Your task to perform on an android device: Search for lenovo thinkpad on costco, select the first entry, add it to the cart, then select checkout. Image 0: 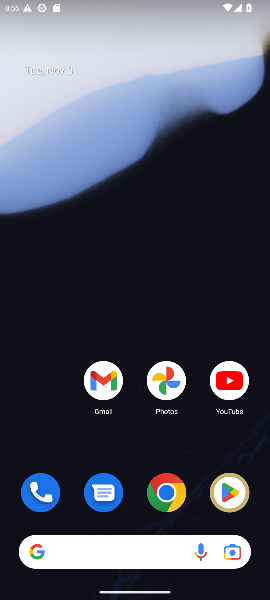
Step 0: click (176, 492)
Your task to perform on an android device: Search for lenovo thinkpad on costco, select the first entry, add it to the cart, then select checkout. Image 1: 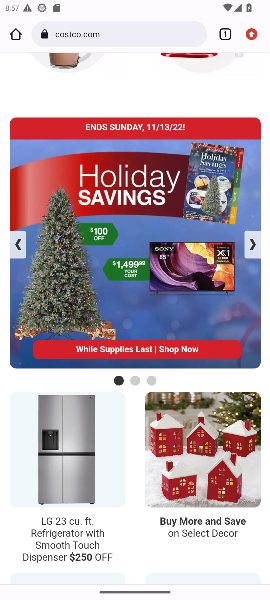
Step 1: click (154, 25)
Your task to perform on an android device: Search for lenovo thinkpad on costco, select the first entry, add it to the cart, then select checkout. Image 2: 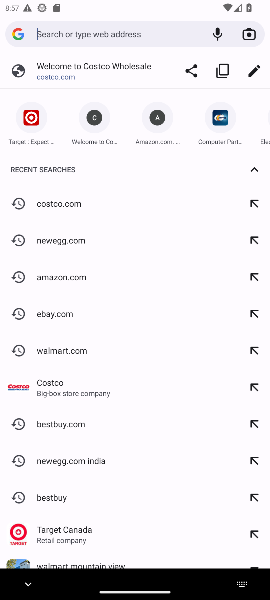
Step 2: click (69, 203)
Your task to perform on an android device: Search for lenovo thinkpad on costco, select the first entry, add it to the cart, then select checkout. Image 3: 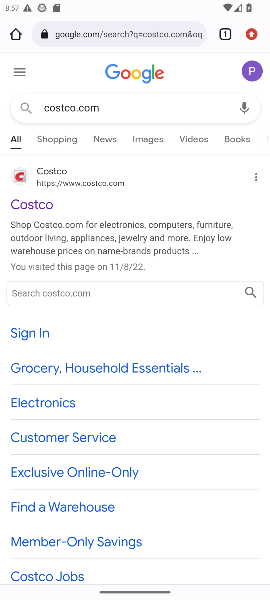
Step 3: click (96, 181)
Your task to perform on an android device: Search for lenovo thinkpad on costco, select the first entry, add it to the cart, then select checkout. Image 4: 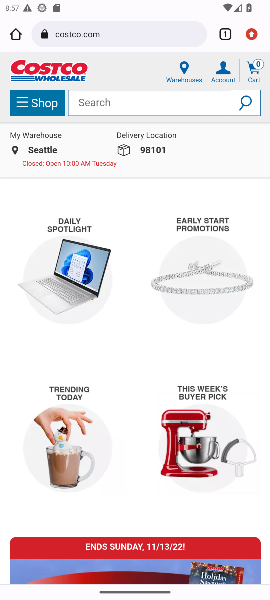
Step 4: click (125, 102)
Your task to perform on an android device: Search for lenovo thinkpad on costco, select the first entry, add it to the cart, then select checkout. Image 5: 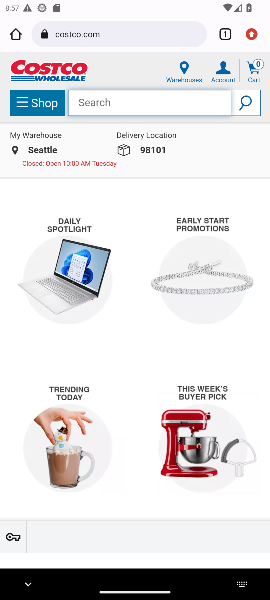
Step 5: type " lenovo thinkpad"
Your task to perform on an android device: Search for lenovo thinkpad on costco, select the first entry, add it to the cart, then select checkout. Image 6: 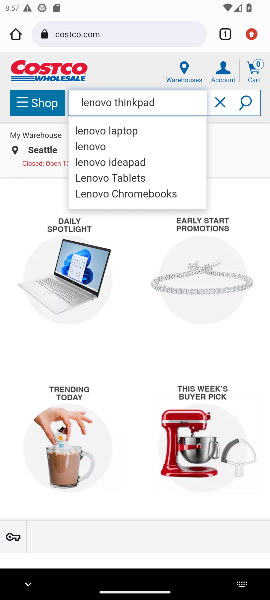
Step 6: click (234, 146)
Your task to perform on an android device: Search for lenovo thinkpad on costco, select the first entry, add it to the cart, then select checkout. Image 7: 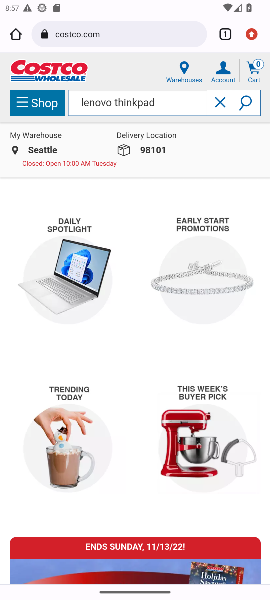
Step 7: click (234, 145)
Your task to perform on an android device: Search for lenovo thinkpad on costco, select the first entry, add it to the cart, then select checkout. Image 8: 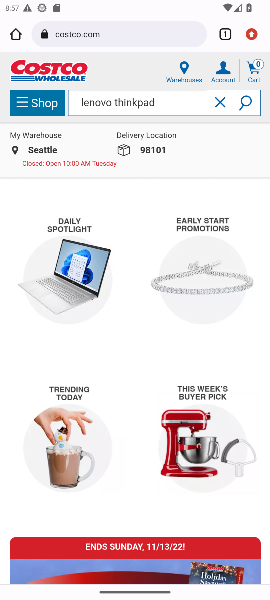
Step 8: click (234, 145)
Your task to perform on an android device: Search for lenovo thinkpad on costco, select the first entry, add it to the cart, then select checkout. Image 9: 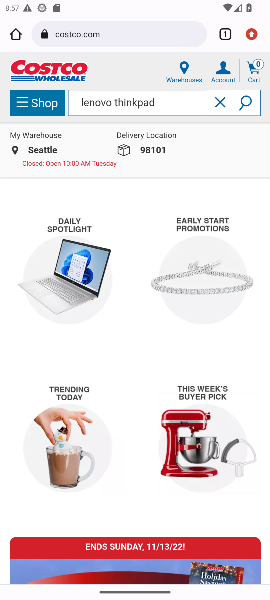
Step 9: task complete